Your task to perform on an android device: turn on sleep mode Image 0: 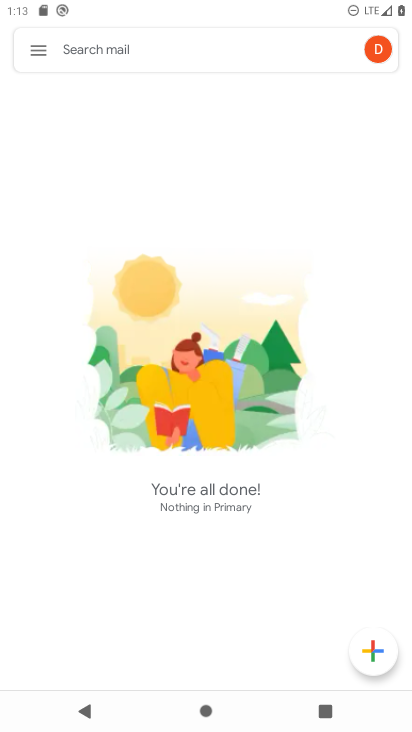
Step 0: press home button
Your task to perform on an android device: turn on sleep mode Image 1: 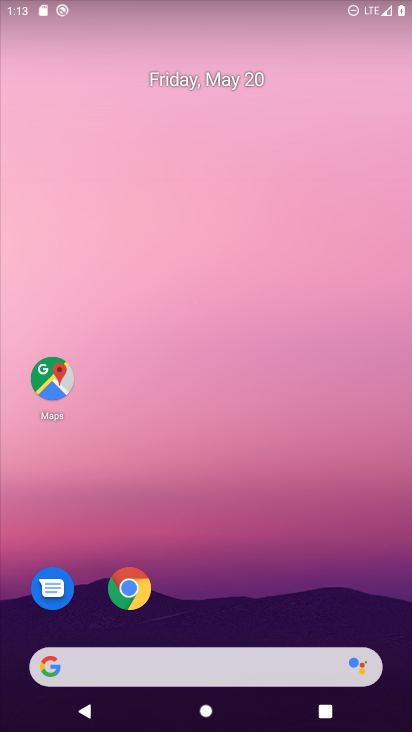
Step 1: drag from (370, 618) to (274, 72)
Your task to perform on an android device: turn on sleep mode Image 2: 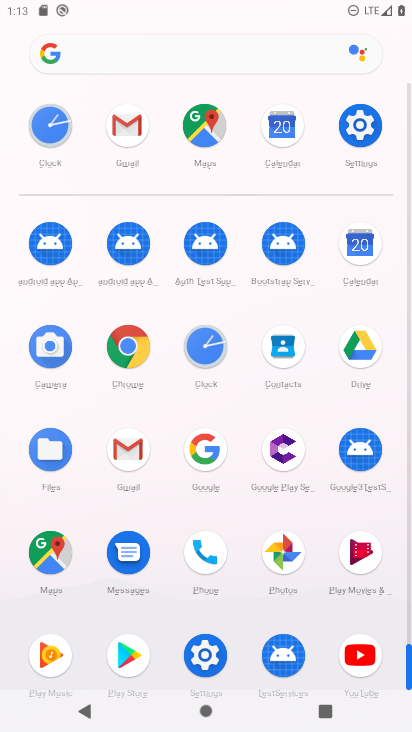
Step 2: click (205, 656)
Your task to perform on an android device: turn on sleep mode Image 3: 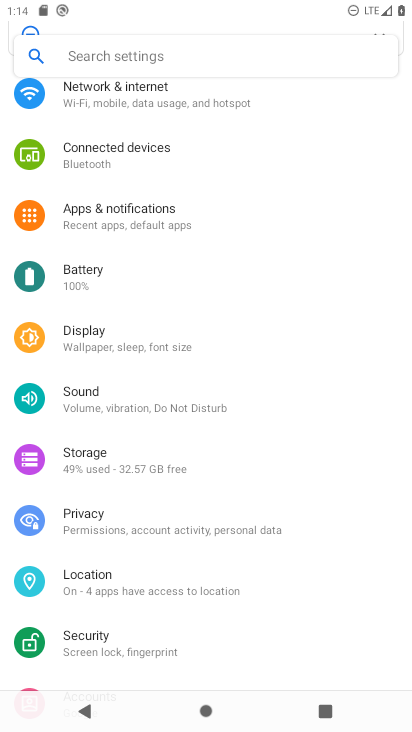
Step 3: click (112, 345)
Your task to perform on an android device: turn on sleep mode Image 4: 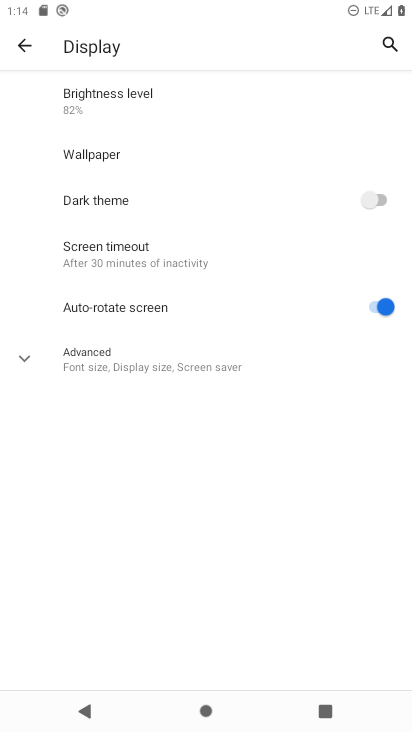
Step 4: click (22, 355)
Your task to perform on an android device: turn on sleep mode Image 5: 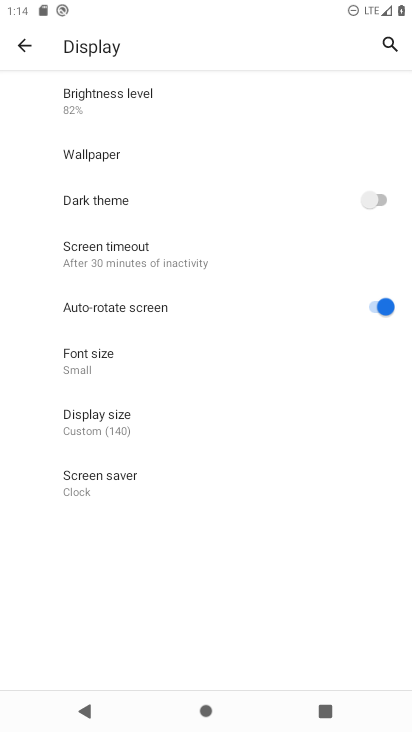
Step 5: task complete